Your task to perform on an android device: change the clock style Image 0: 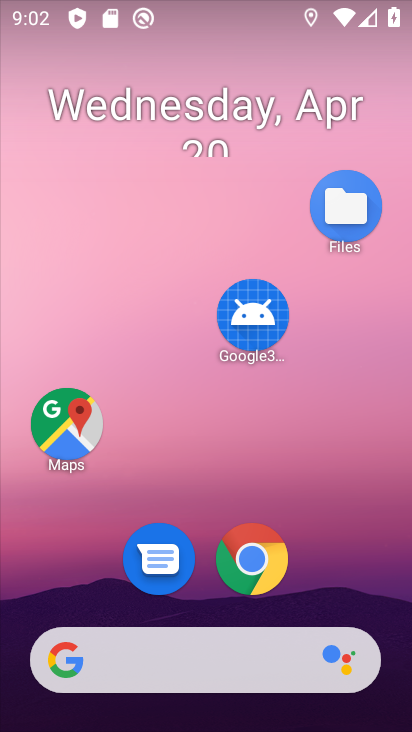
Step 0: drag from (112, 586) to (177, 109)
Your task to perform on an android device: change the clock style Image 1: 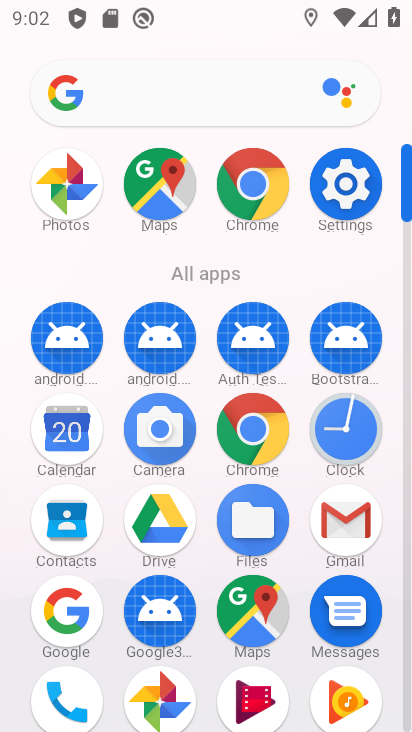
Step 1: click (354, 438)
Your task to perform on an android device: change the clock style Image 2: 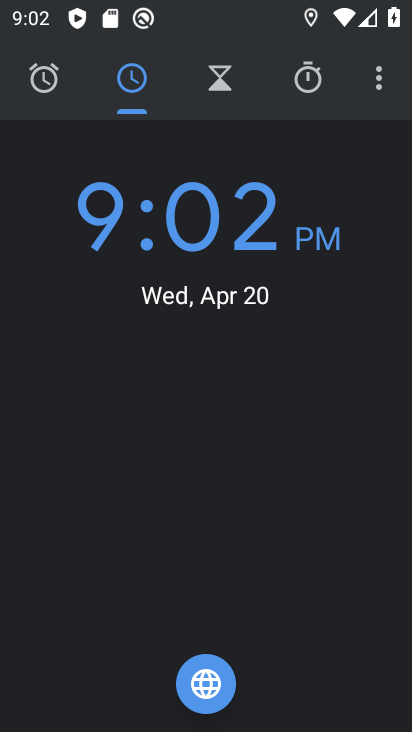
Step 2: click (377, 94)
Your task to perform on an android device: change the clock style Image 3: 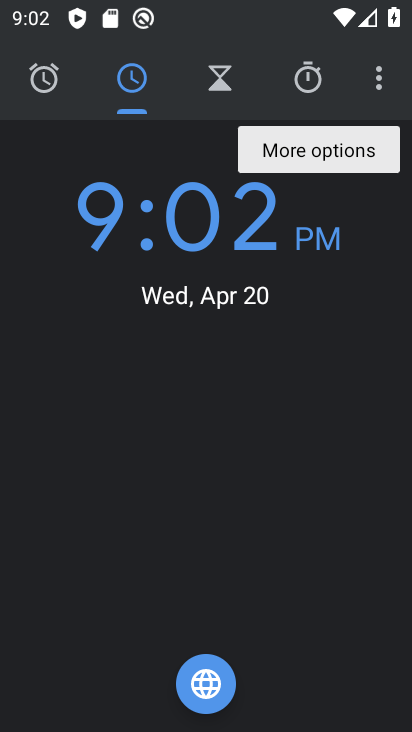
Step 3: click (349, 162)
Your task to perform on an android device: change the clock style Image 4: 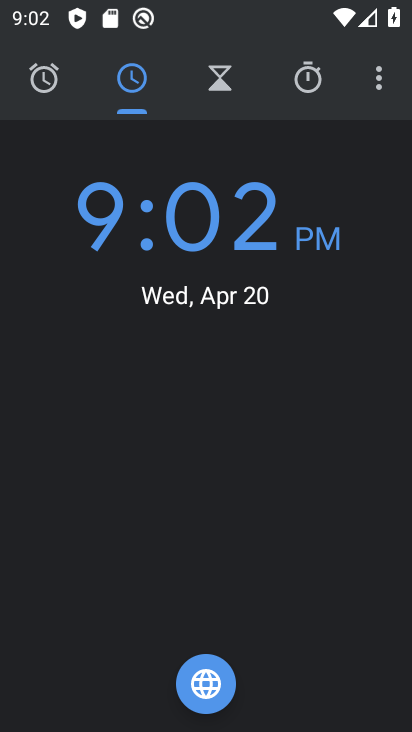
Step 4: click (376, 80)
Your task to perform on an android device: change the clock style Image 5: 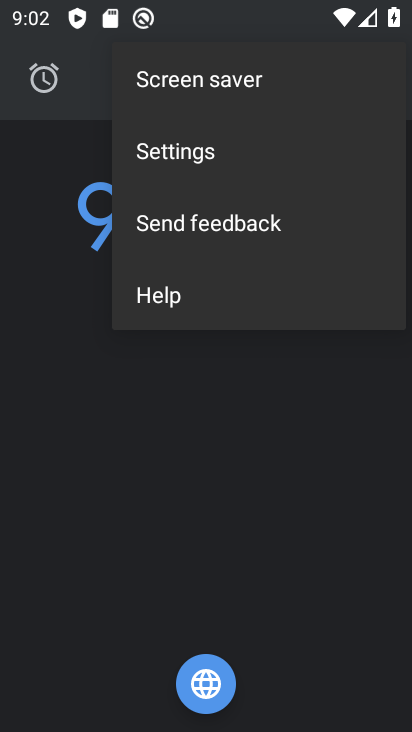
Step 5: click (294, 156)
Your task to perform on an android device: change the clock style Image 6: 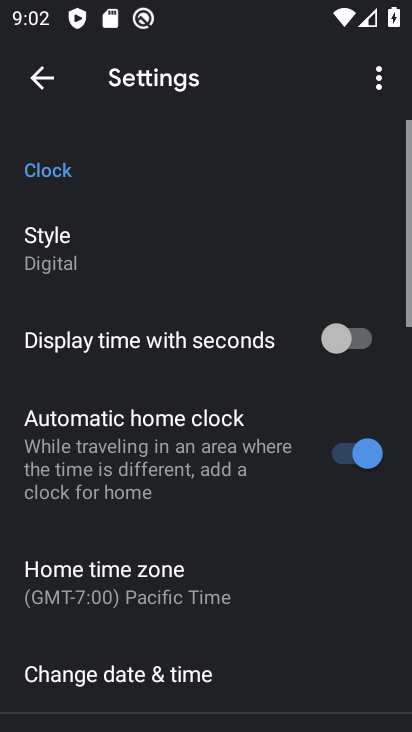
Step 6: click (302, 250)
Your task to perform on an android device: change the clock style Image 7: 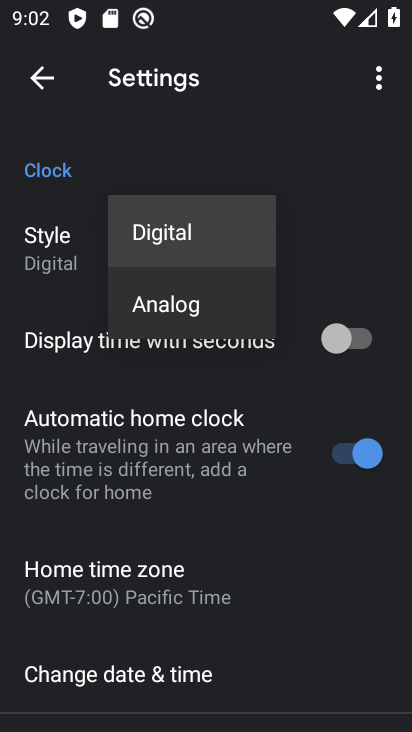
Step 7: click (209, 302)
Your task to perform on an android device: change the clock style Image 8: 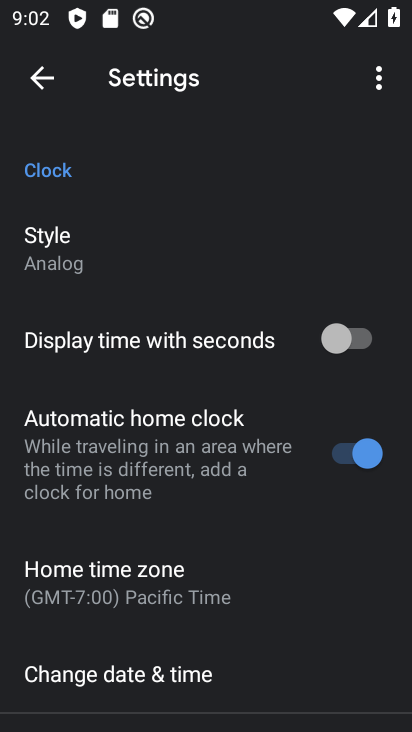
Step 8: task complete